Your task to perform on an android device: Turn off the flashlight Image 0: 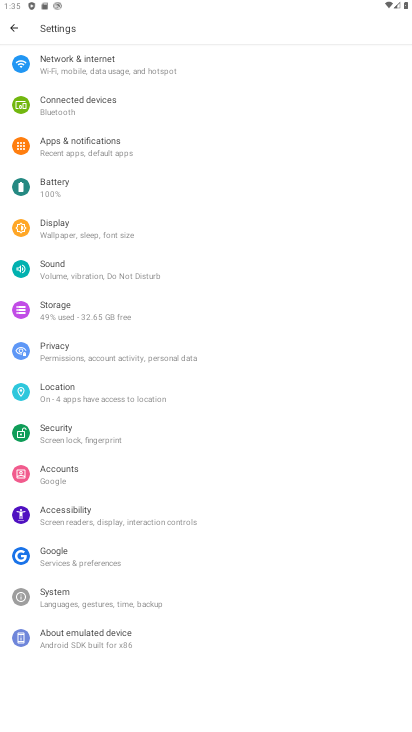
Step 0: task impossible